Your task to perform on an android device: turn on airplane mode Image 0: 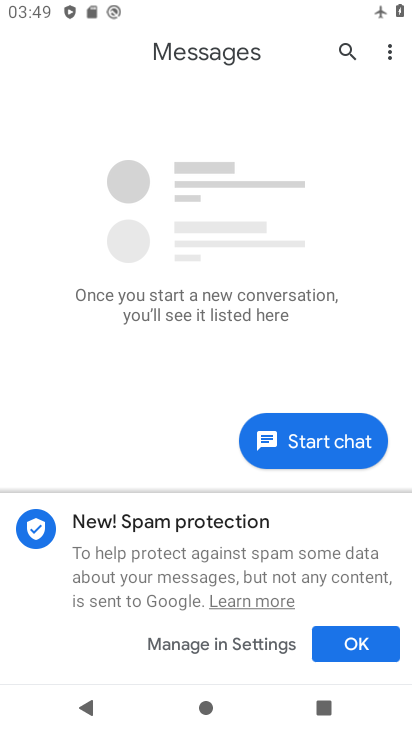
Step 0: press home button
Your task to perform on an android device: turn on airplane mode Image 1: 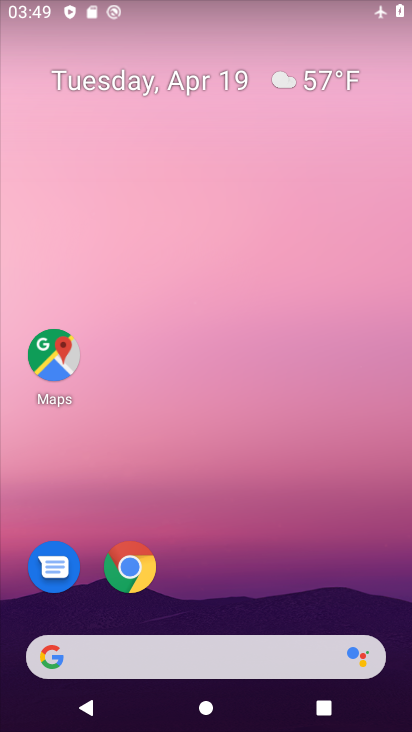
Step 1: drag from (303, 582) to (317, 220)
Your task to perform on an android device: turn on airplane mode Image 2: 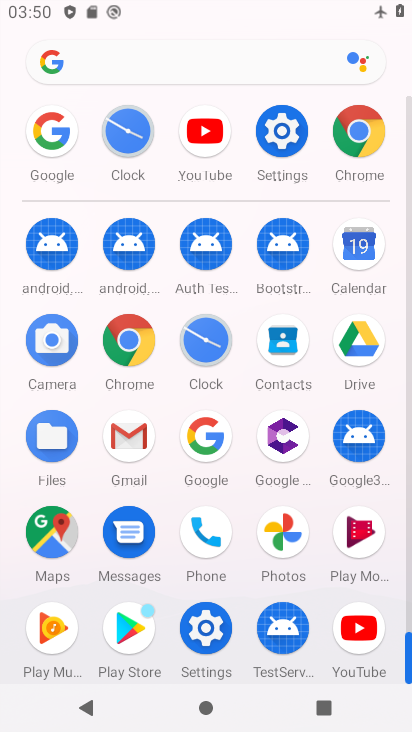
Step 2: click (216, 619)
Your task to perform on an android device: turn on airplane mode Image 3: 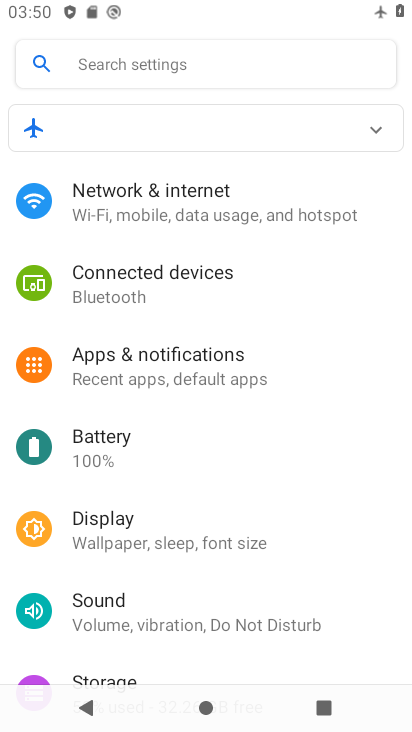
Step 3: drag from (341, 585) to (350, 463)
Your task to perform on an android device: turn on airplane mode Image 4: 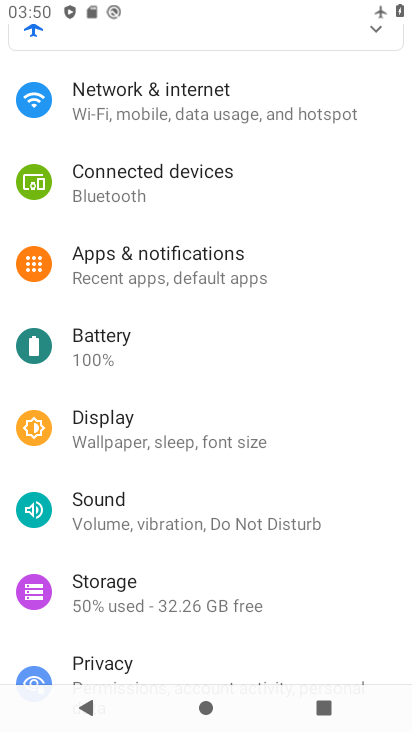
Step 4: drag from (337, 602) to (349, 406)
Your task to perform on an android device: turn on airplane mode Image 5: 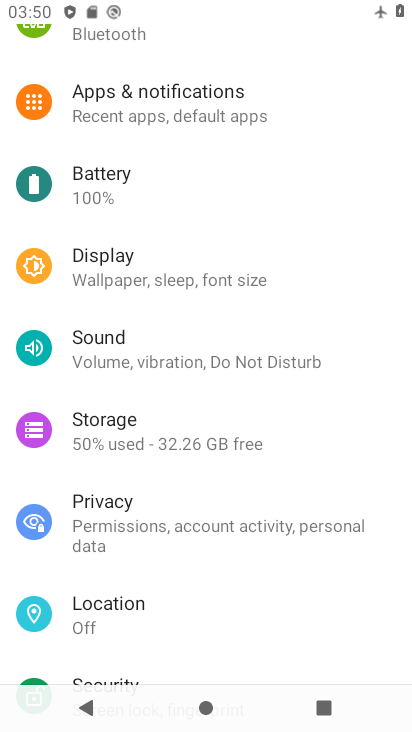
Step 5: drag from (357, 617) to (373, 346)
Your task to perform on an android device: turn on airplane mode Image 6: 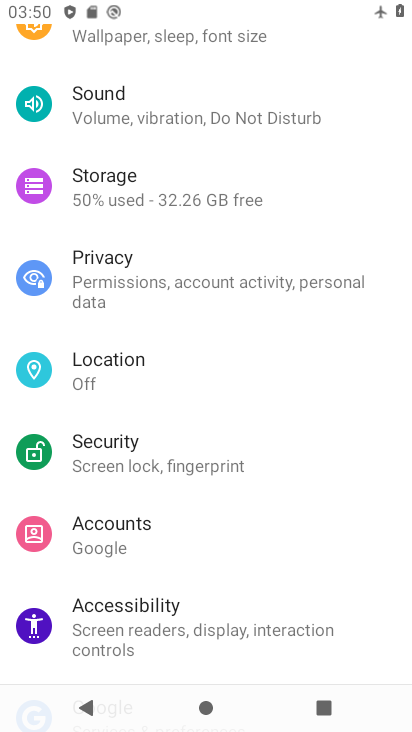
Step 6: drag from (363, 616) to (370, 397)
Your task to perform on an android device: turn on airplane mode Image 7: 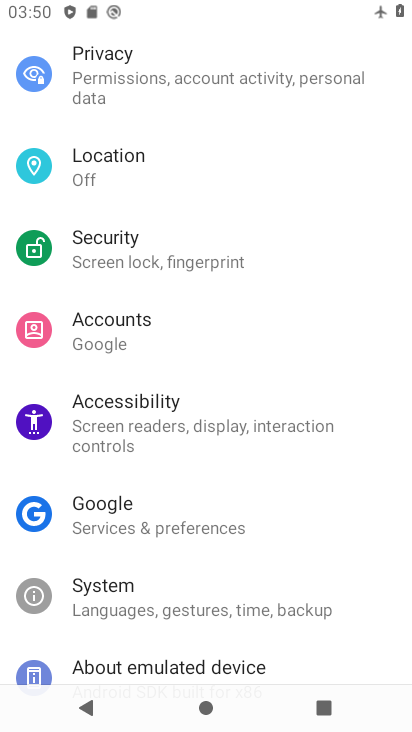
Step 7: drag from (372, 543) to (363, 380)
Your task to perform on an android device: turn on airplane mode Image 8: 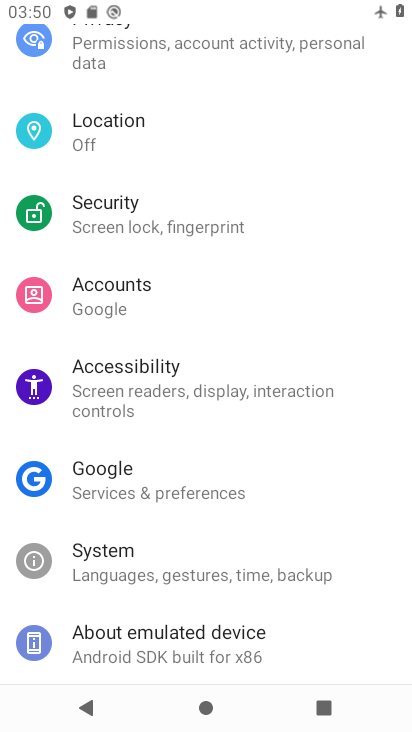
Step 8: drag from (358, 300) to (340, 491)
Your task to perform on an android device: turn on airplane mode Image 9: 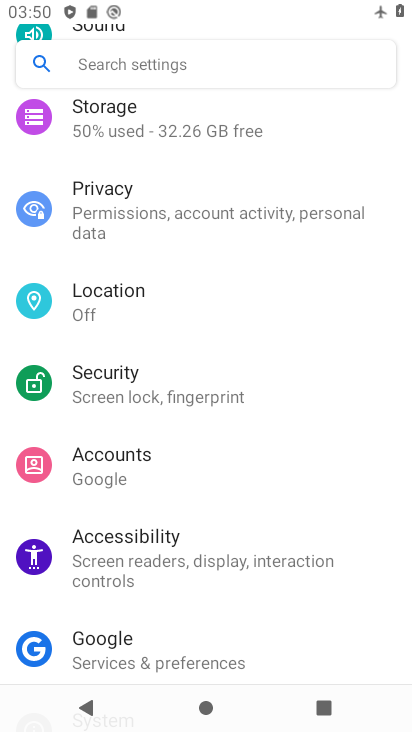
Step 9: drag from (362, 271) to (348, 461)
Your task to perform on an android device: turn on airplane mode Image 10: 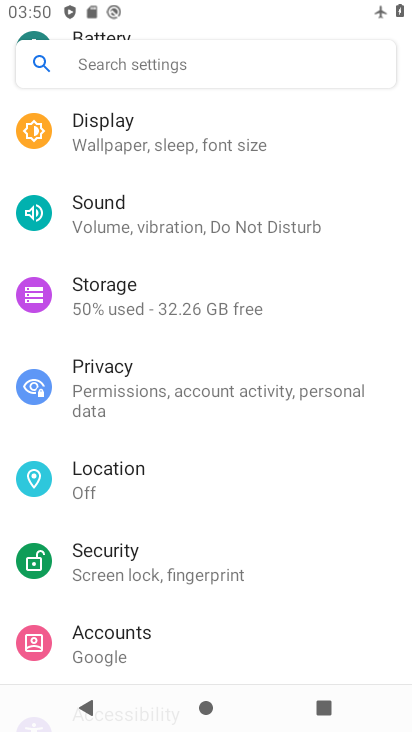
Step 10: drag from (362, 280) to (349, 490)
Your task to perform on an android device: turn on airplane mode Image 11: 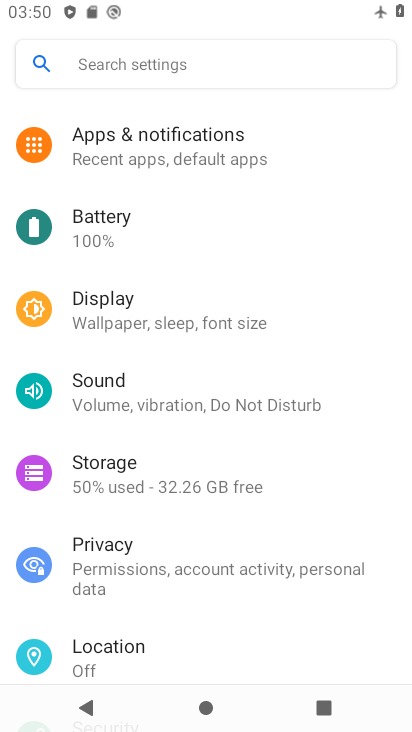
Step 11: drag from (359, 276) to (361, 483)
Your task to perform on an android device: turn on airplane mode Image 12: 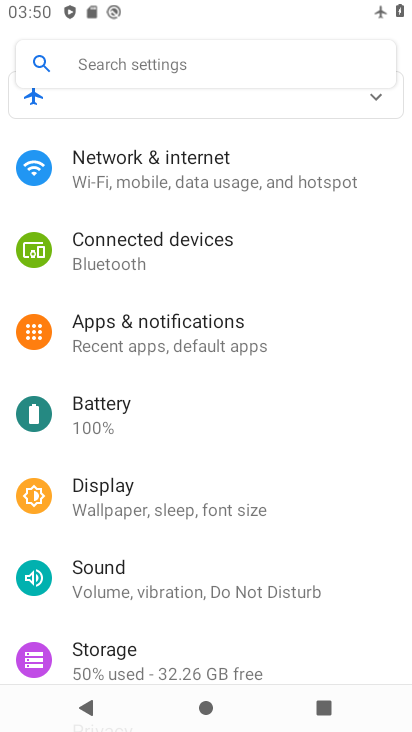
Step 12: drag from (354, 248) to (332, 442)
Your task to perform on an android device: turn on airplane mode Image 13: 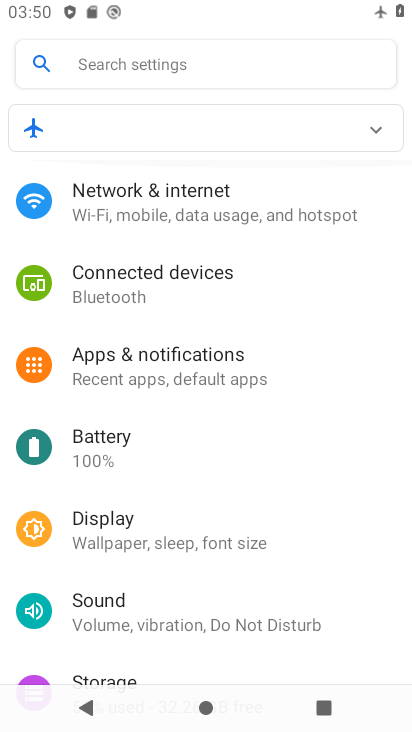
Step 13: click (189, 195)
Your task to perform on an android device: turn on airplane mode Image 14: 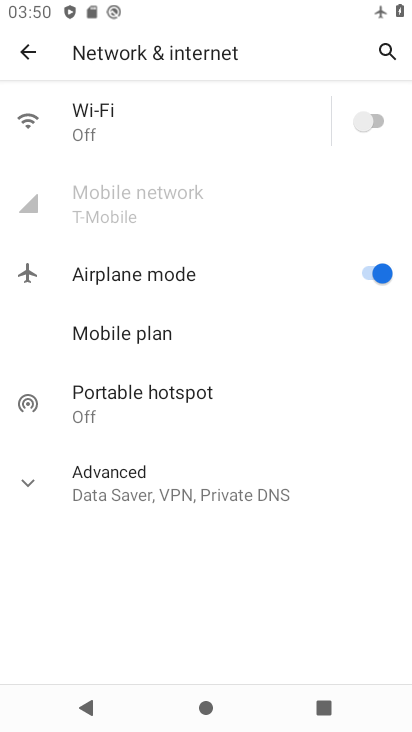
Step 14: task complete